Your task to perform on an android device: find which apps use the phone's location Image 0: 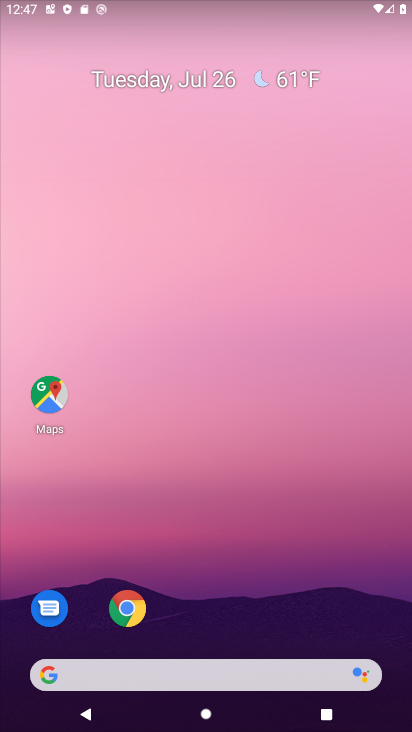
Step 0: press home button
Your task to perform on an android device: find which apps use the phone's location Image 1: 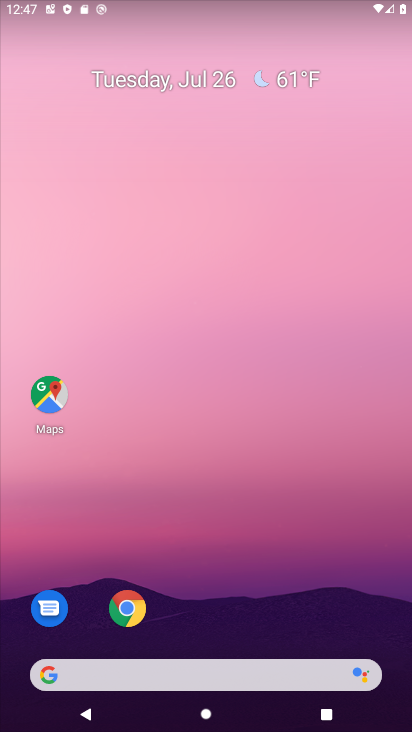
Step 1: drag from (351, 582) to (305, 129)
Your task to perform on an android device: find which apps use the phone's location Image 2: 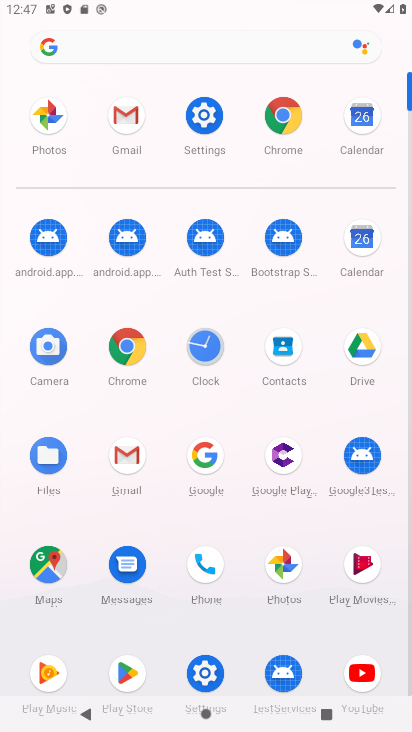
Step 2: click (211, 114)
Your task to perform on an android device: find which apps use the phone's location Image 3: 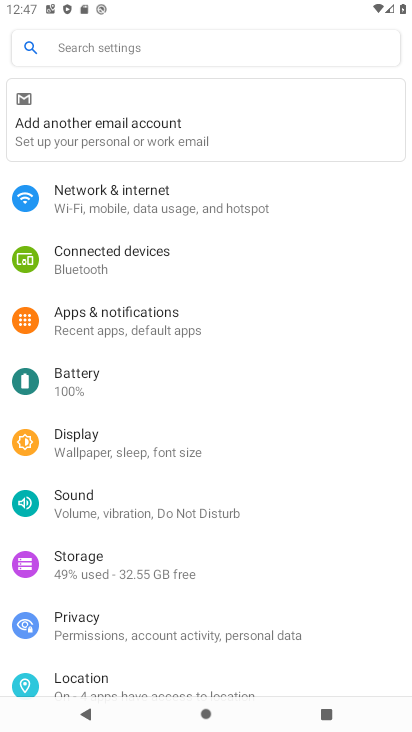
Step 3: drag from (330, 394) to (320, 321)
Your task to perform on an android device: find which apps use the phone's location Image 4: 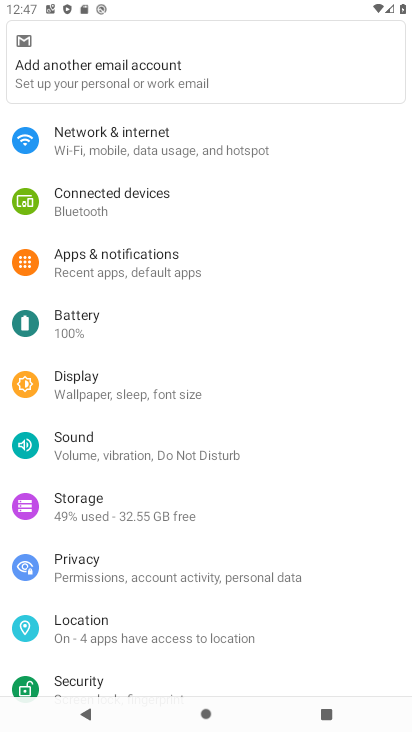
Step 4: drag from (329, 482) to (333, 389)
Your task to perform on an android device: find which apps use the phone's location Image 5: 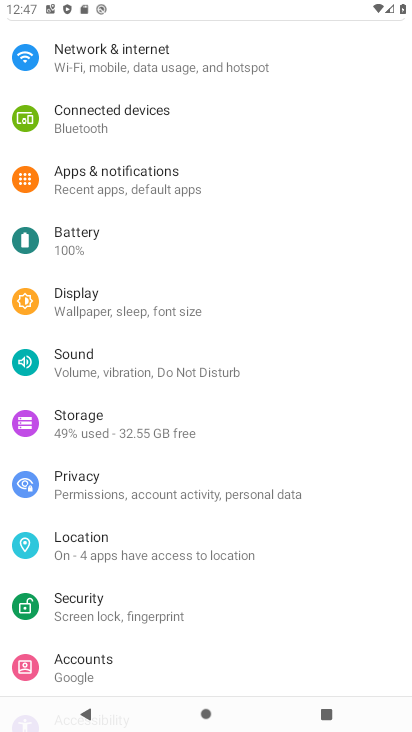
Step 5: drag from (352, 503) to (352, 384)
Your task to perform on an android device: find which apps use the phone's location Image 6: 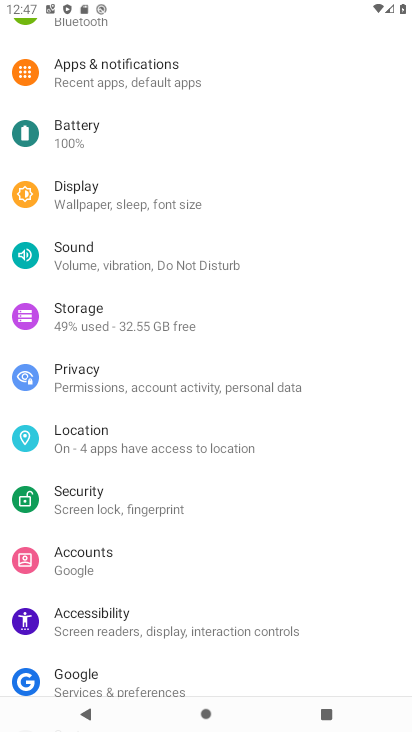
Step 6: drag from (355, 512) to (360, 426)
Your task to perform on an android device: find which apps use the phone's location Image 7: 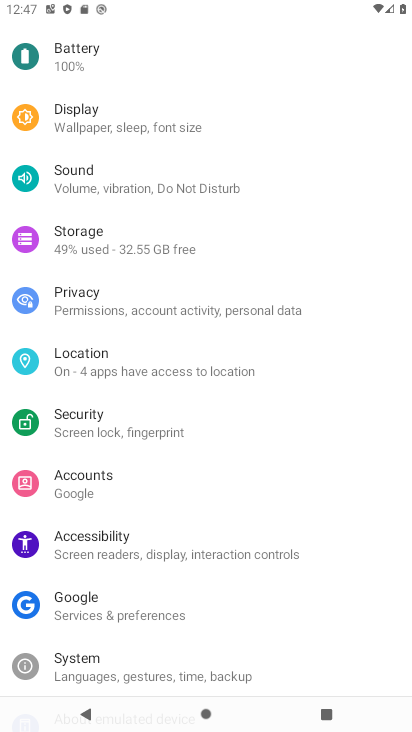
Step 7: drag from (342, 459) to (344, 366)
Your task to perform on an android device: find which apps use the phone's location Image 8: 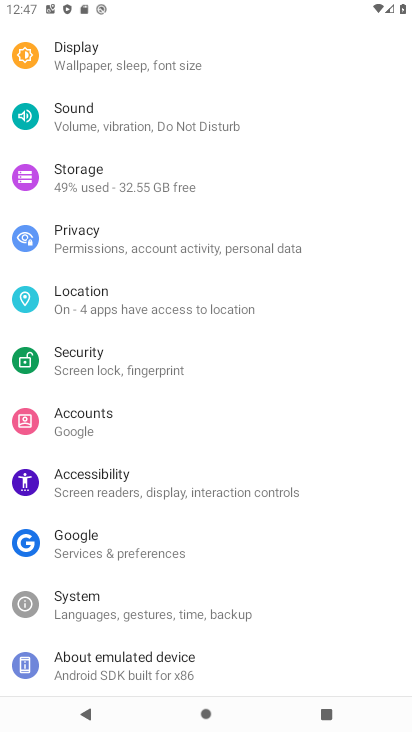
Step 8: drag from (338, 476) to (339, 376)
Your task to perform on an android device: find which apps use the phone's location Image 9: 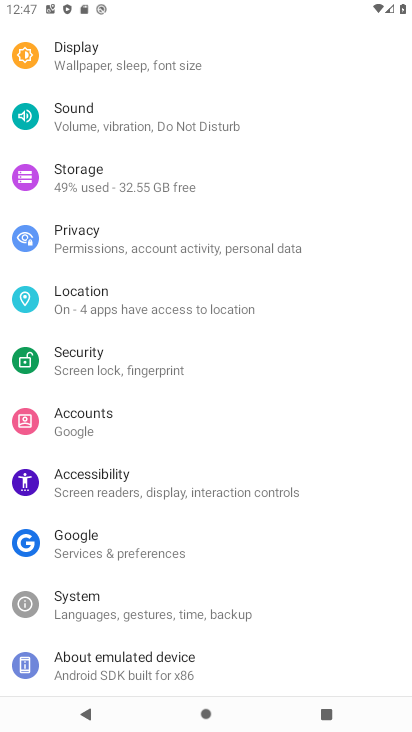
Step 9: click (180, 311)
Your task to perform on an android device: find which apps use the phone's location Image 10: 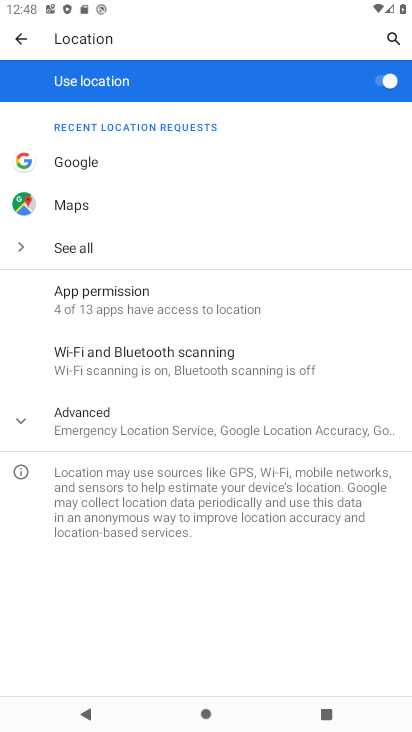
Step 10: click (186, 292)
Your task to perform on an android device: find which apps use the phone's location Image 11: 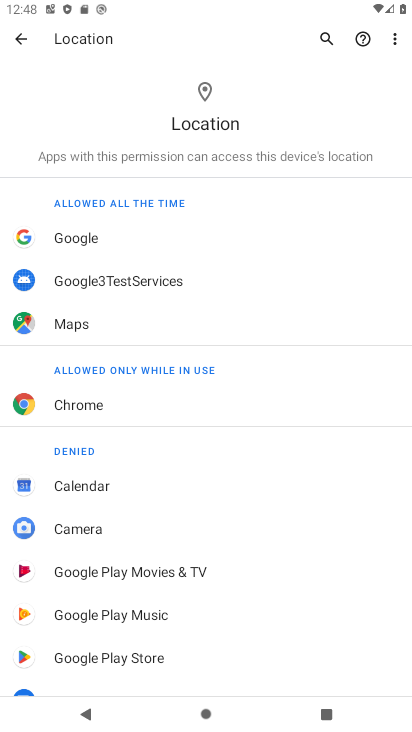
Step 11: drag from (276, 506) to (281, 350)
Your task to perform on an android device: find which apps use the phone's location Image 12: 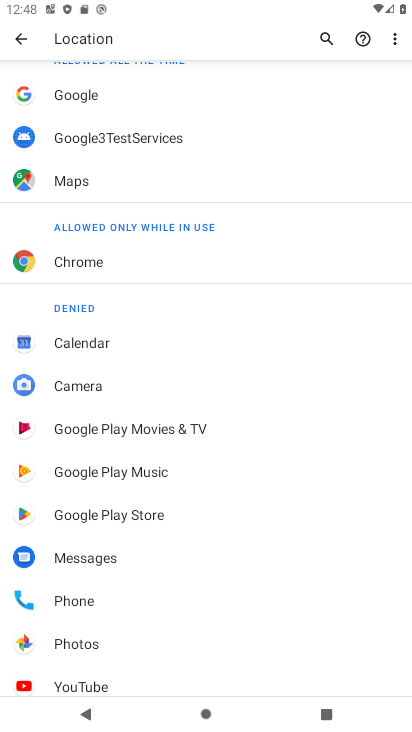
Step 12: drag from (288, 474) to (291, 350)
Your task to perform on an android device: find which apps use the phone's location Image 13: 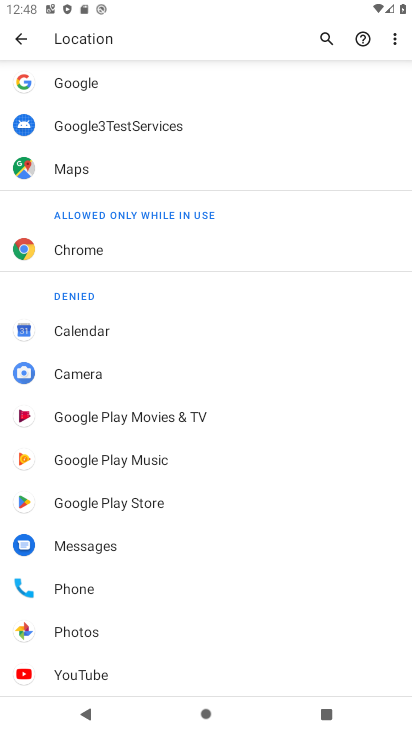
Step 13: click (94, 625)
Your task to perform on an android device: find which apps use the phone's location Image 14: 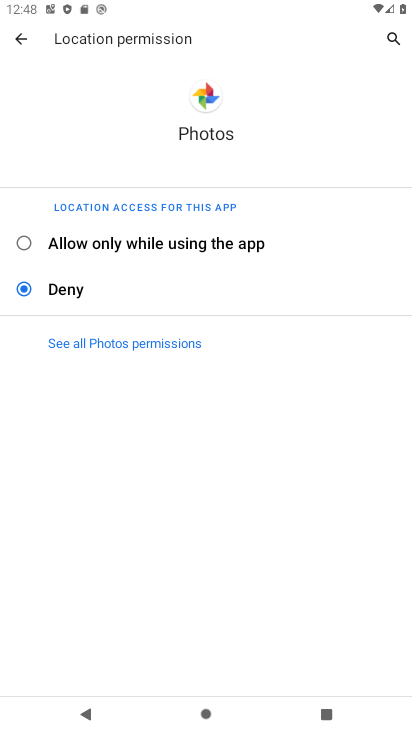
Step 14: click (188, 235)
Your task to perform on an android device: find which apps use the phone's location Image 15: 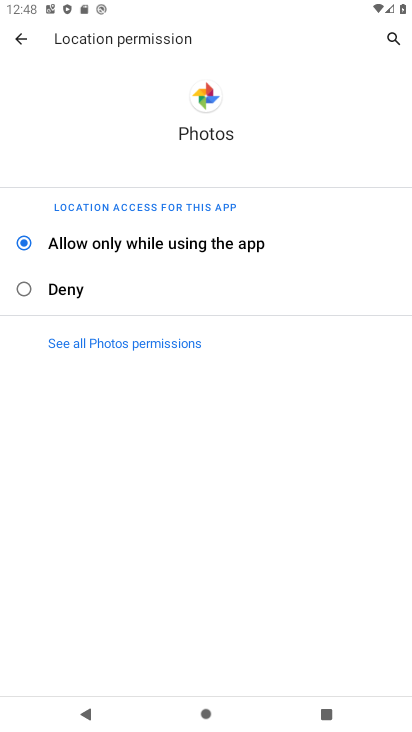
Step 15: task complete